Your task to perform on an android device: Open display settings Image 0: 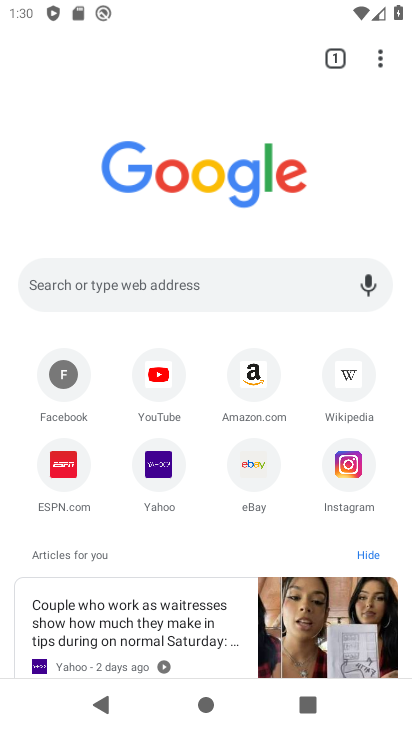
Step 0: press home button
Your task to perform on an android device: Open display settings Image 1: 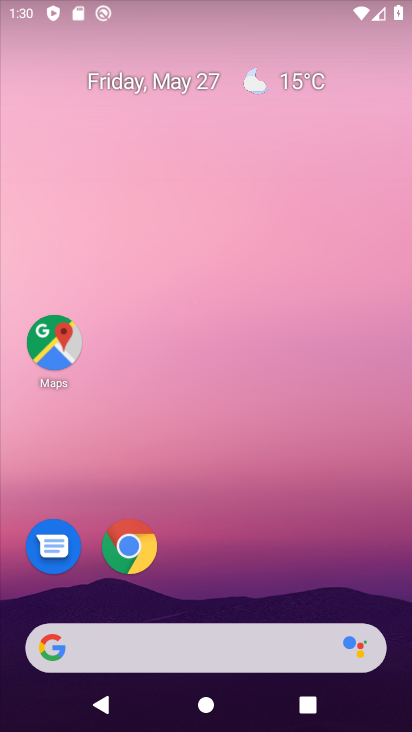
Step 1: drag from (382, 569) to (371, 148)
Your task to perform on an android device: Open display settings Image 2: 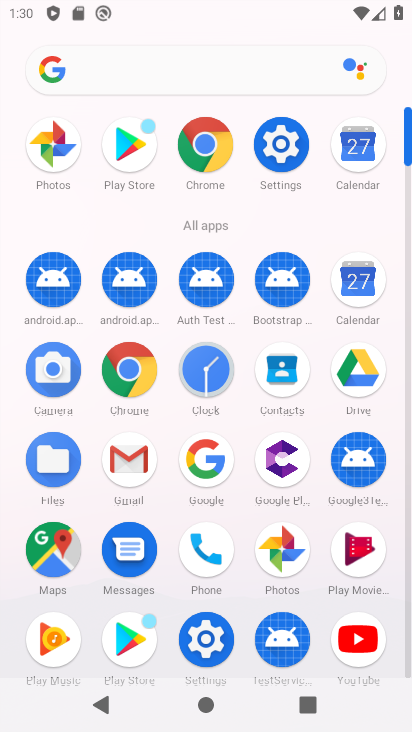
Step 2: click (193, 649)
Your task to perform on an android device: Open display settings Image 3: 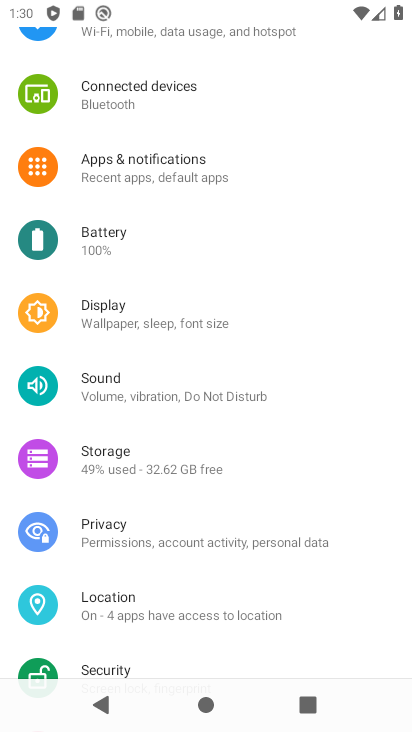
Step 3: click (37, 330)
Your task to perform on an android device: Open display settings Image 4: 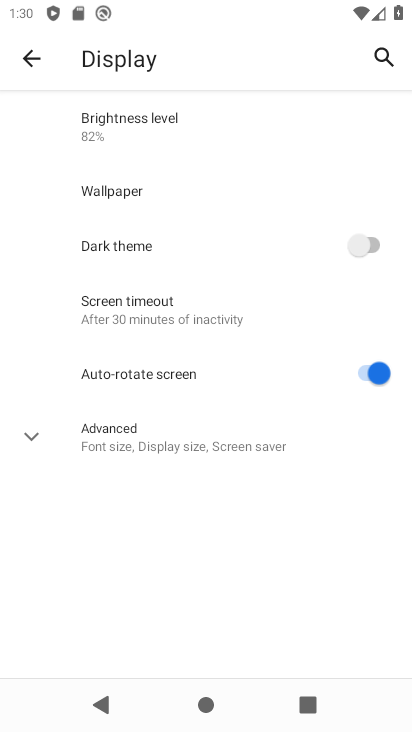
Step 4: task complete